Your task to perform on an android device: remove spam from my inbox in the gmail app Image 0: 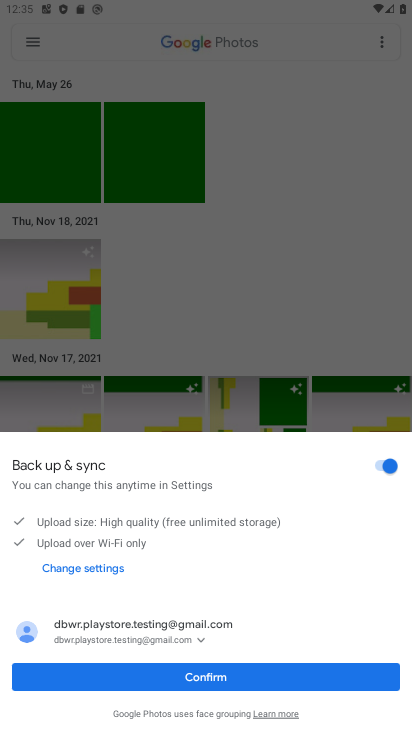
Step 0: press home button
Your task to perform on an android device: remove spam from my inbox in the gmail app Image 1: 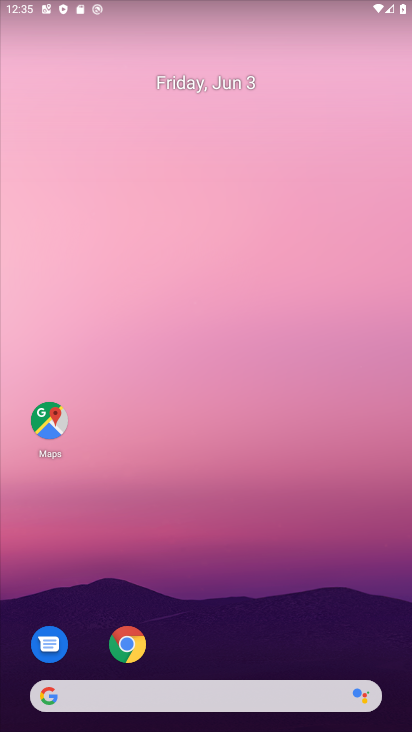
Step 1: drag from (226, 726) to (226, 113)
Your task to perform on an android device: remove spam from my inbox in the gmail app Image 2: 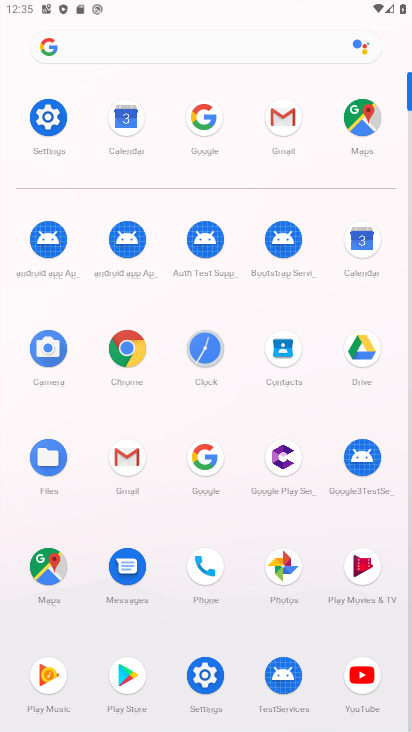
Step 2: click (128, 466)
Your task to perform on an android device: remove spam from my inbox in the gmail app Image 3: 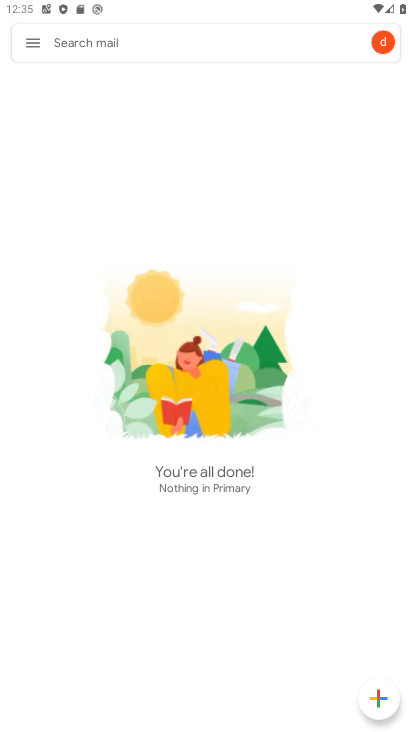
Step 3: click (29, 41)
Your task to perform on an android device: remove spam from my inbox in the gmail app Image 4: 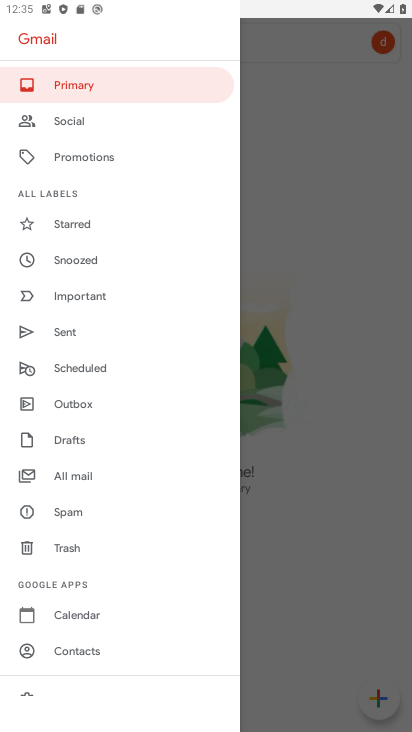
Step 4: drag from (89, 84) to (112, 376)
Your task to perform on an android device: remove spam from my inbox in the gmail app Image 5: 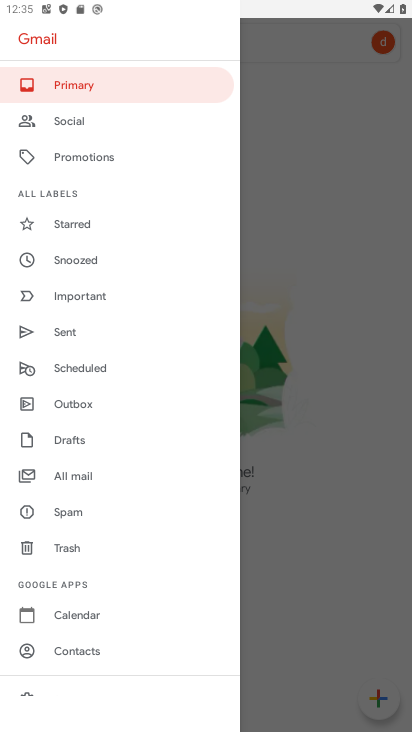
Step 5: click (81, 90)
Your task to perform on an android device: remove spam from my inbox in the gmail app Image 6: 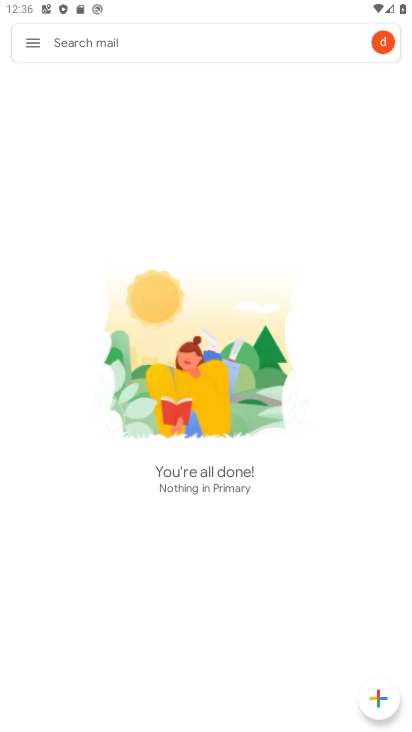
Step 6: task complete